Your task to perform on an android device: toggle notification dots Image 0: 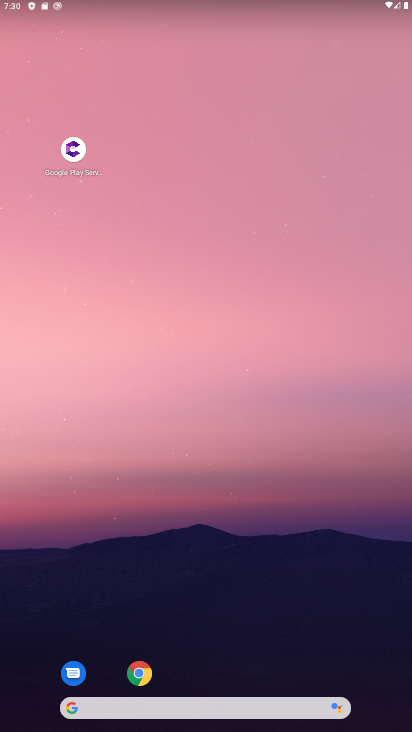
Step 0: drag from (223, 701) to (222, 330)
Your task to perform on an android device: toggle notification dots Image 1: 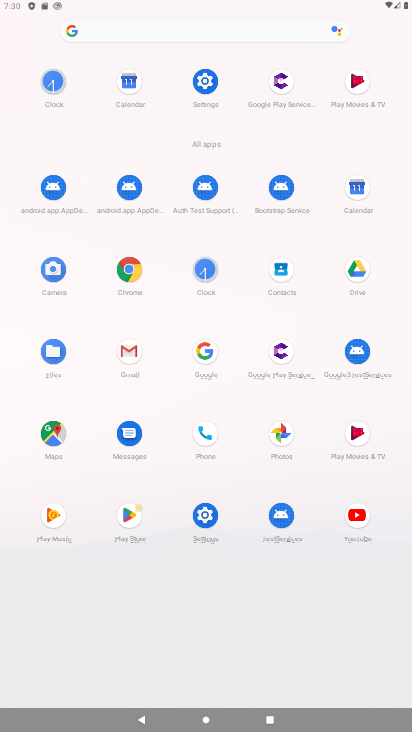
Step 1: click (202, 81)
Your task to perform on an android device: toggle notification dots Image 2: 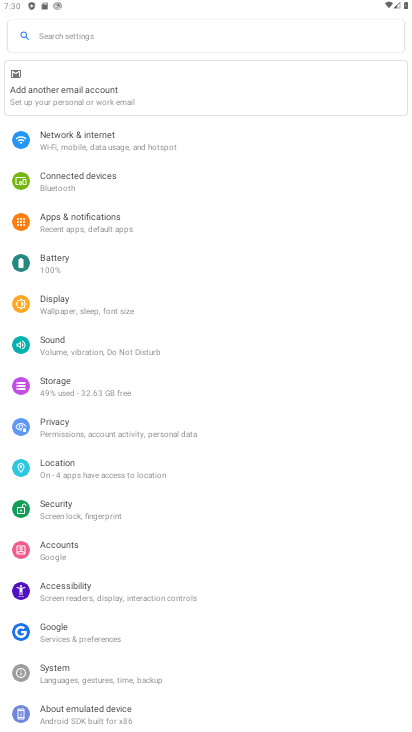
Step 2: click (72, 228)
Your task to perform on an android device: toggle notification dots Image 3: 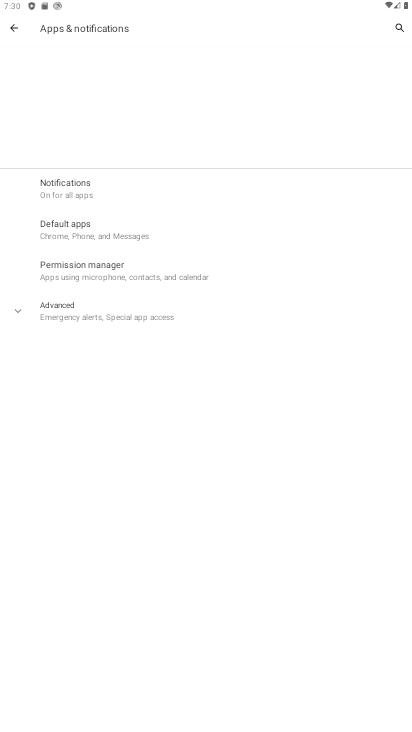
Step 3: click (83, 315)
Your task to perform on an android device: toggle notification dots Image 4: 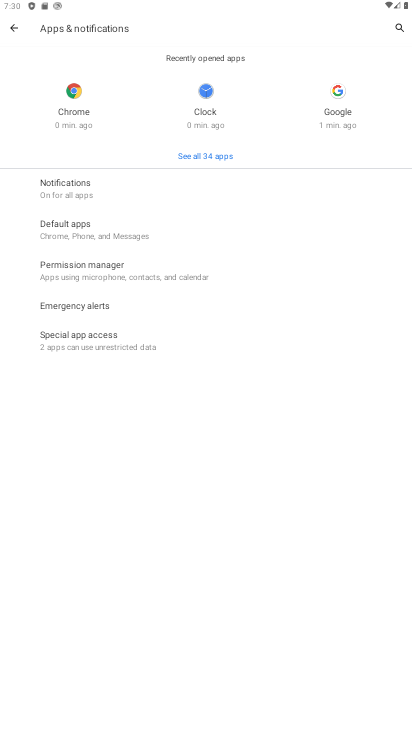
Step 4: click (73, 190)
Your task to perform on an android device: toggle notification dots Image 5: 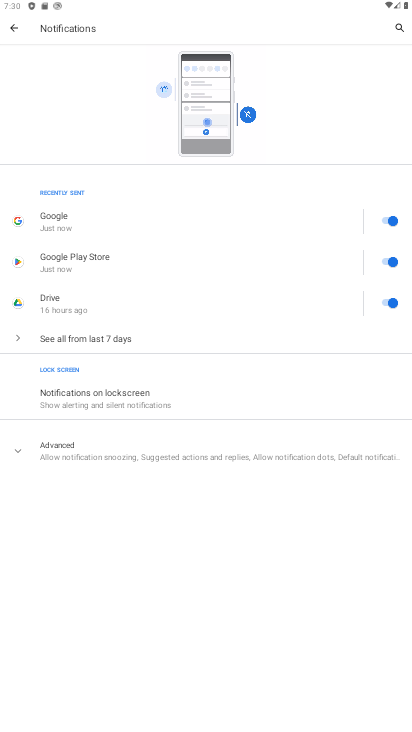
Step 5: click (94, 394)
Your task to perform on an android device: toggle notification dots Image 6: 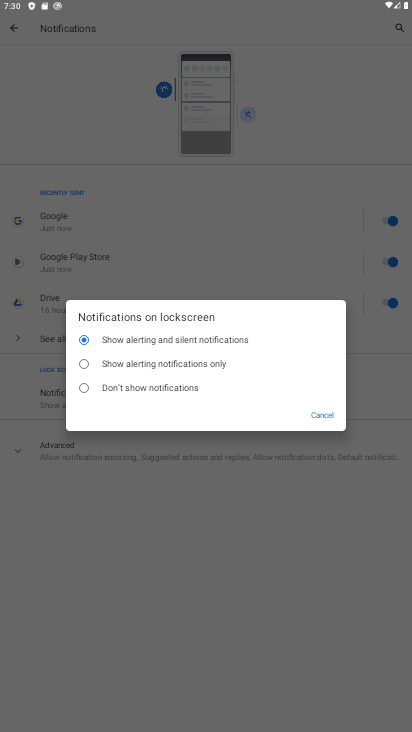
Step 6: click (195, 560)
Your task to perform on an android device: toggle notification dots Image 7: 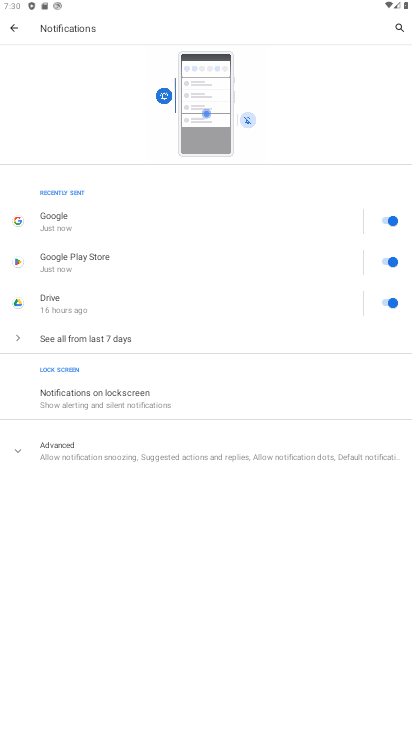
Step 7: click (54, 456)
Your task to perform on an android device: toggle notification dots Image 8: 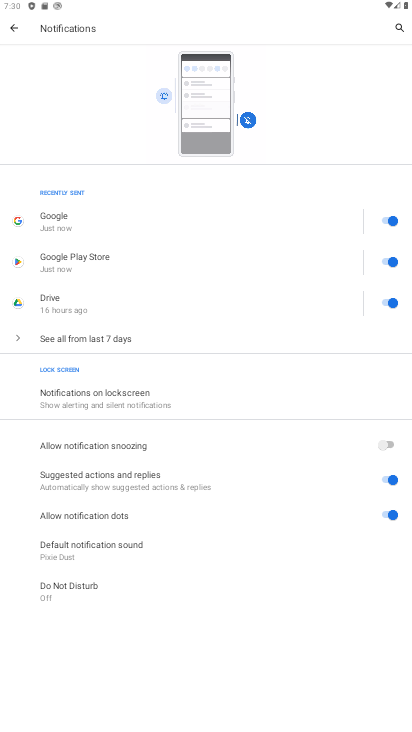
Step 8: click (390, 511)
Your task to perform on an android device: toggle notification dots Image 9: 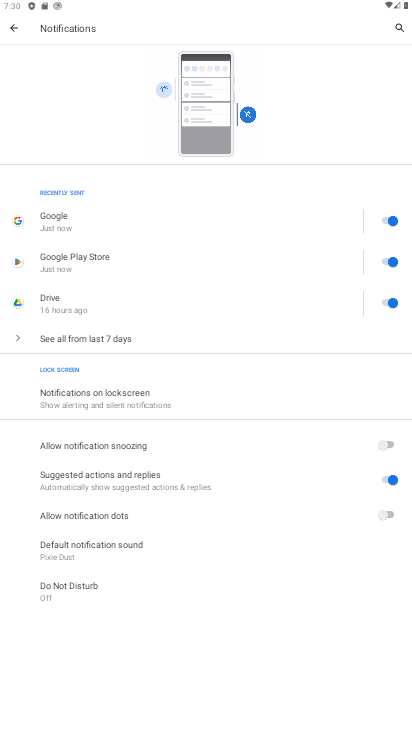
Step 9: task complete